Your task to perform on an android device: turn off location history Image 0: 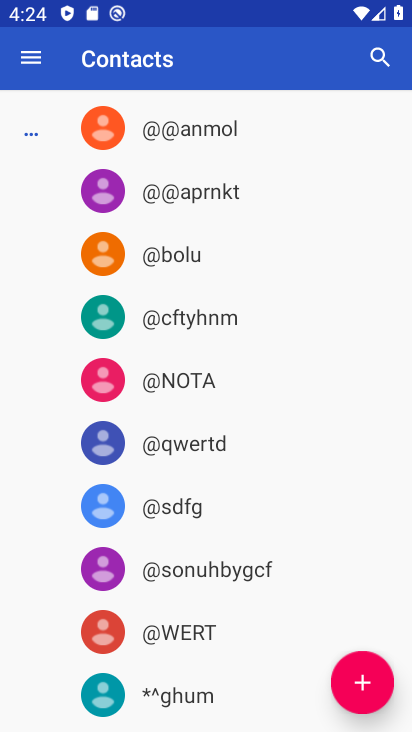
Step 0: press home button
Your task to perform on an android device: turn off location history Image 1: 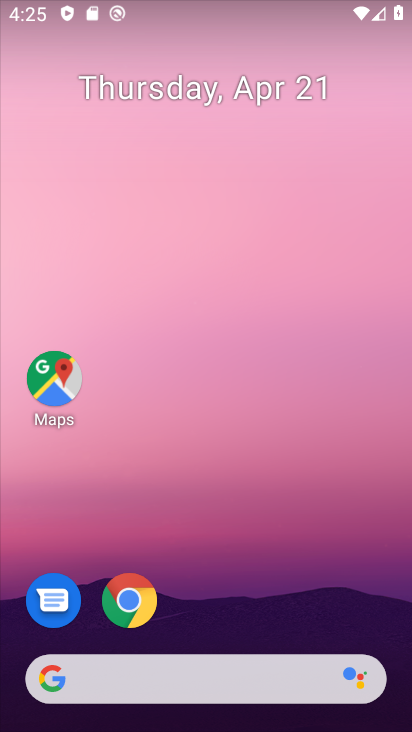
Step 1: drag from (253, 628) to (223, 174)
Your task to perform on an android device: turn off location history Image 2: 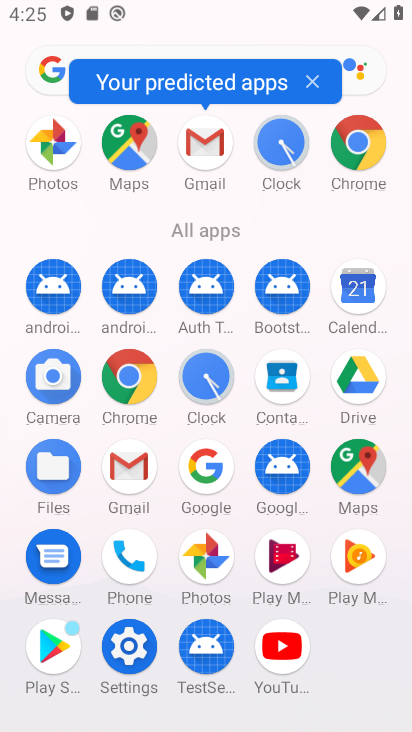
Step 2: click (134, 656)
Your task to perform on an android device: turn off location history Image 3: 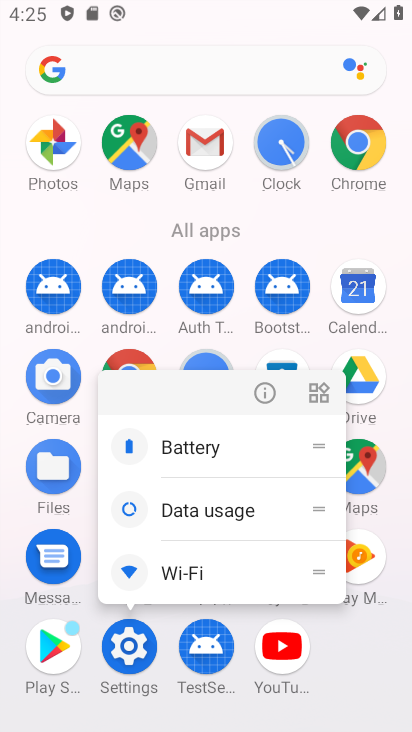
Step 3: click (134, 658)
Your task to perform on an android device: turn off location history Image 4: 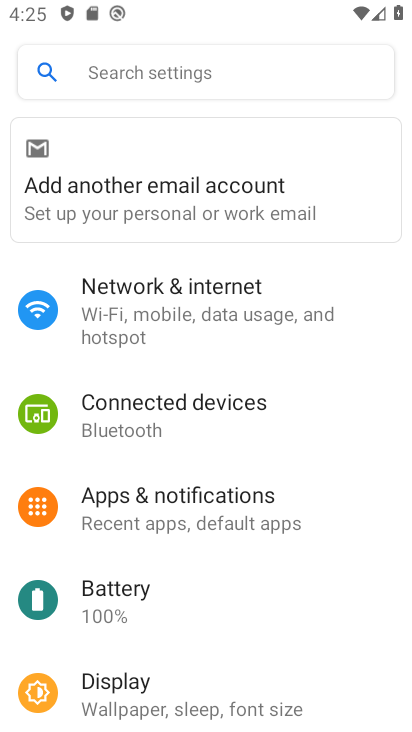
Step 4: drag from (157, 680) to (195, 399)
Your task to perform on an android device: turn off location history Image 5: 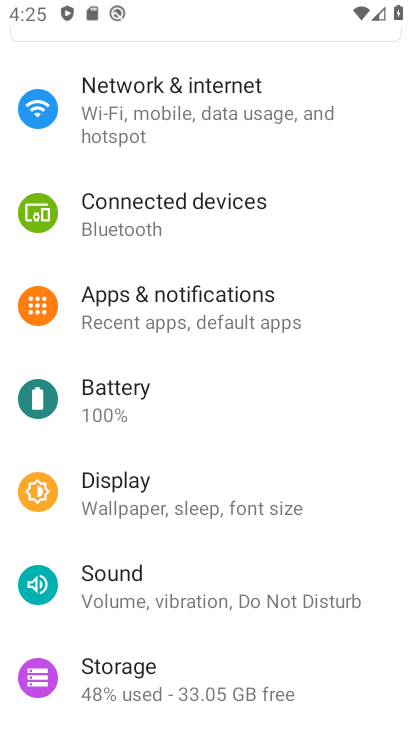
Step 5: drag from (195, 668) to (223, 405)
Your task to perform on an android device: turn off location history Image 6: 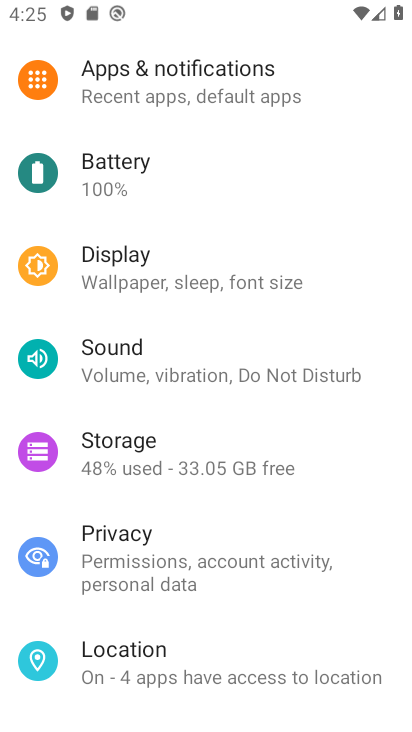
Step 6: click (158, 651)
Your task to perform on an android device: turn off location history Image 7: 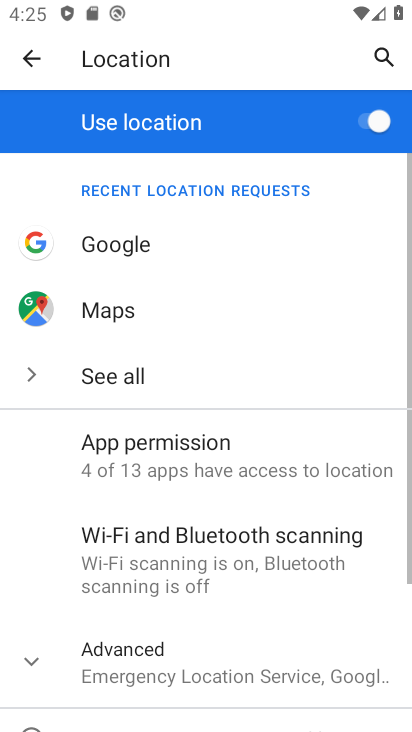
Step 7: click (149, 670)
Your task to perform on an android device: turn off location history Image 8: 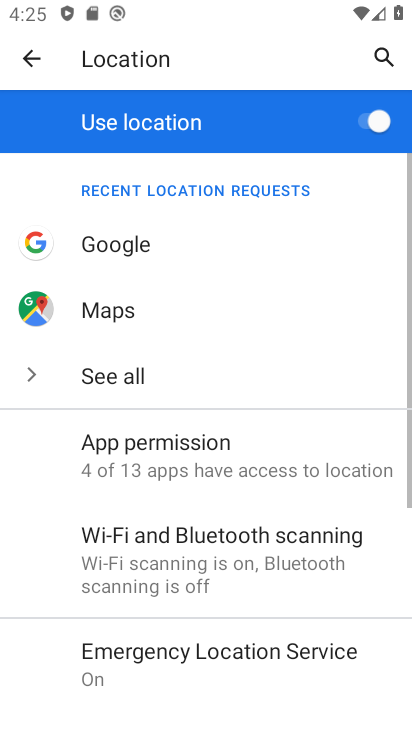
Step 8: drag from (150, 683) to (212, 415)
Your task to perform on an android device: turn off location history Image 9: 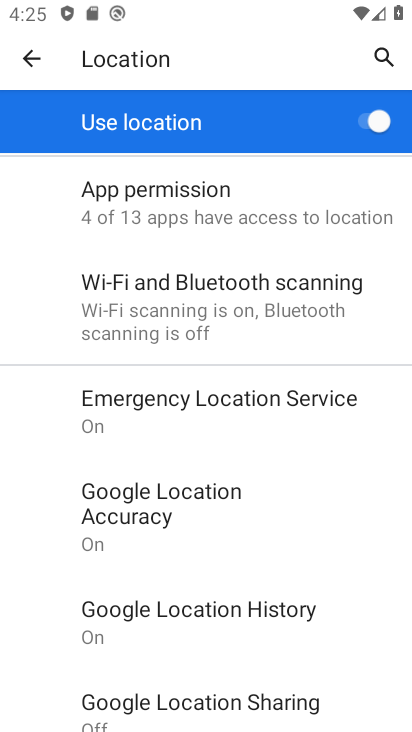
Step 9: click (225, 631)
Your task to perform on an android device: turn off location history Image 10: 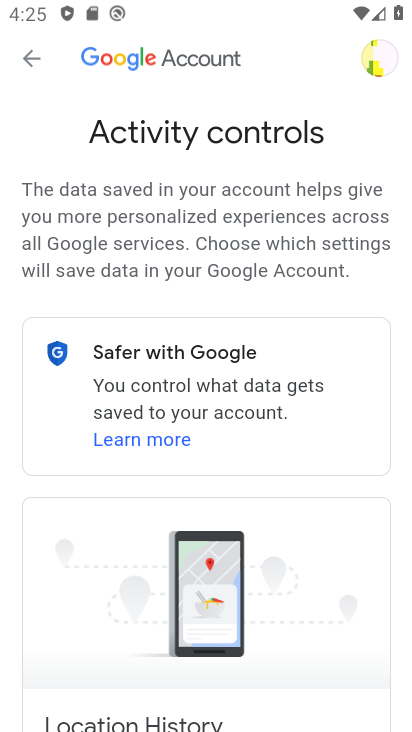
Step 10: drag from (231, 659) to (252, 359)
Your task to perform on an android device: turn off location history Image 11: 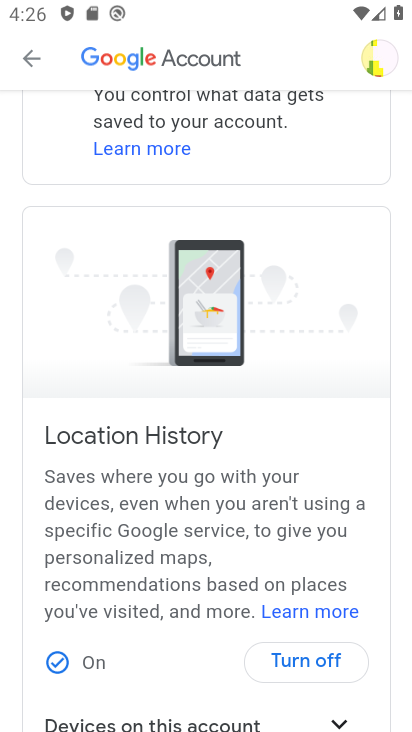
Step 11: click (284, 660)
Your task to perform on an android device: turn off location history Image 12: 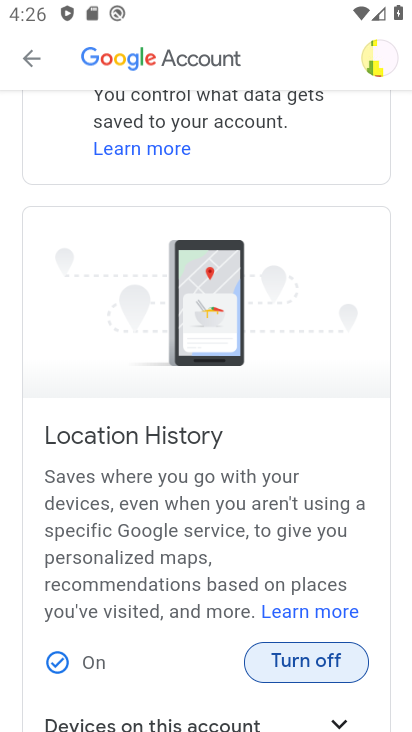
Step 12: click (286, 670)
Your task to perform on an android device: turn off location history Image 13: 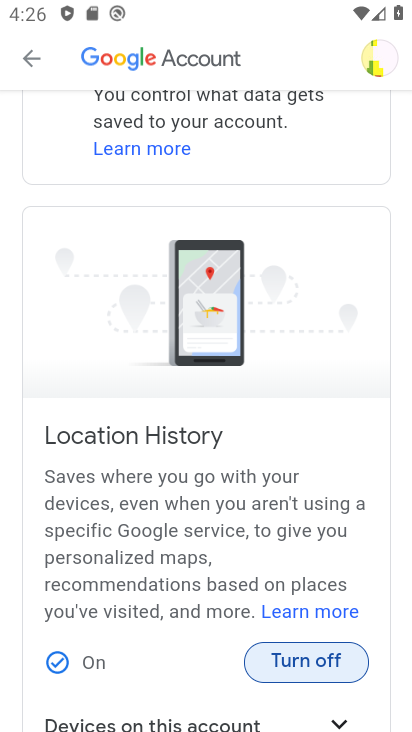
Step 13: click (286, 670)
Your task to perform on an android device: turn off location history Image 14: 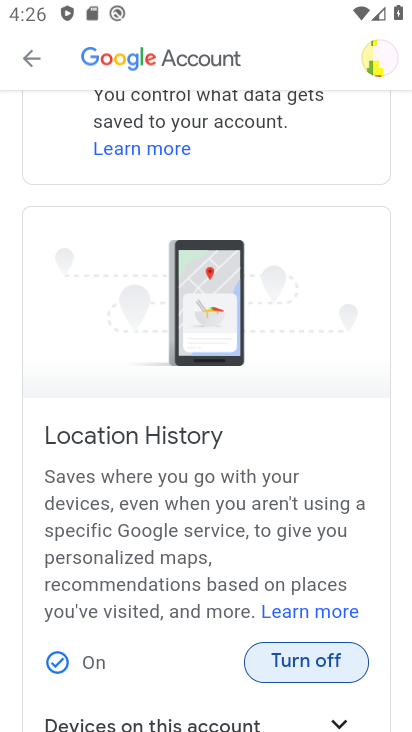
Step 14: click (286, 670)
Your task to perform on an android device: turn off location history Image 15: 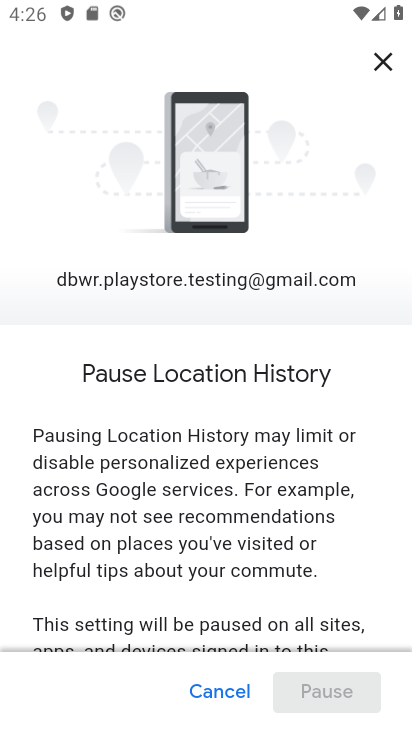
Step 15: drag from (272, 597) to (267, 166)
Your task to perform on an android device: turn off location history Image 16: 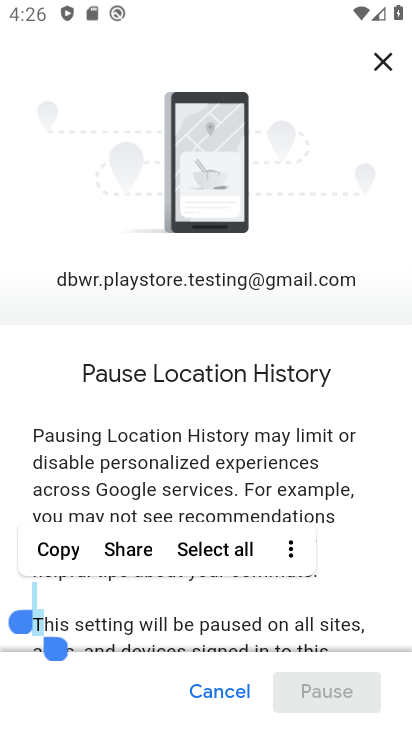
Step 16: drag from (252, 588) to (253, 177)
Your task to perform on an android device: turn off location history Image 17: 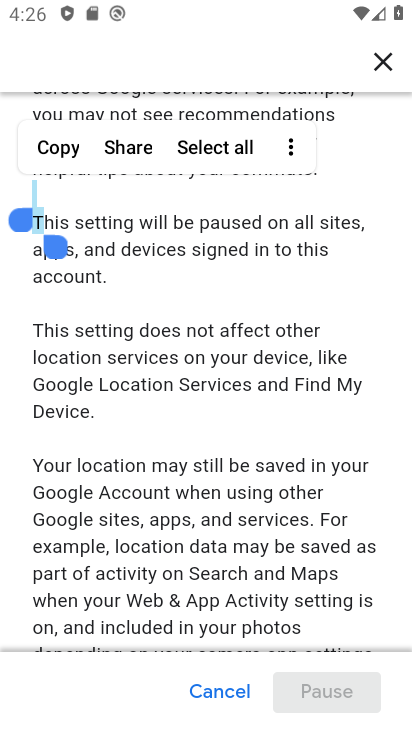
Step 17: drag from (270, 512) to (282, 104)
Your task to perform on an android device: turn off location history Image 18: 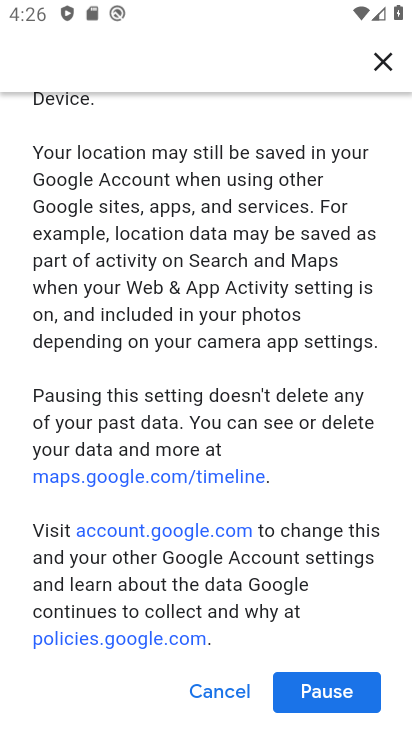
Step 18: click (324, 685)
Your task to perform on an android device: turn off location history Image 19: 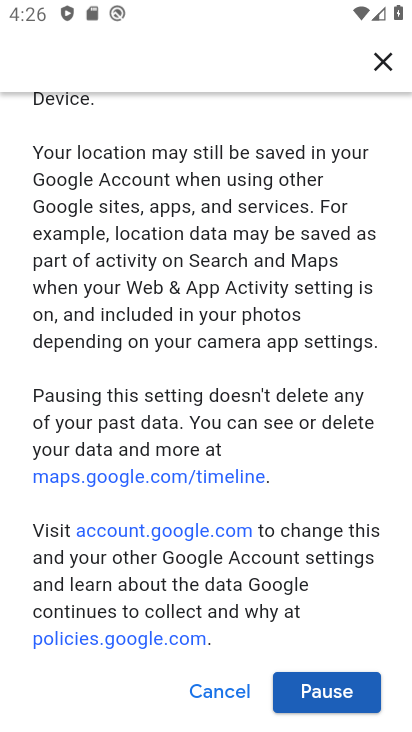
Step 19: click (335, 691)
Your task to perform on an android device: turn off location history Image 20: 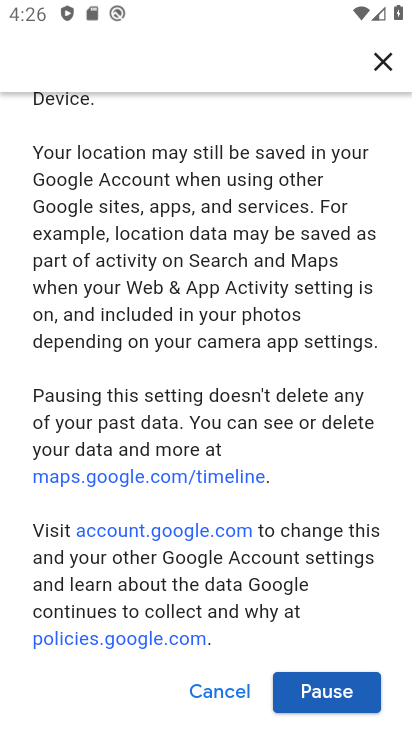
Step 20: click (335, 691)
Your task to perform on an android device: turn off location history Image 21: 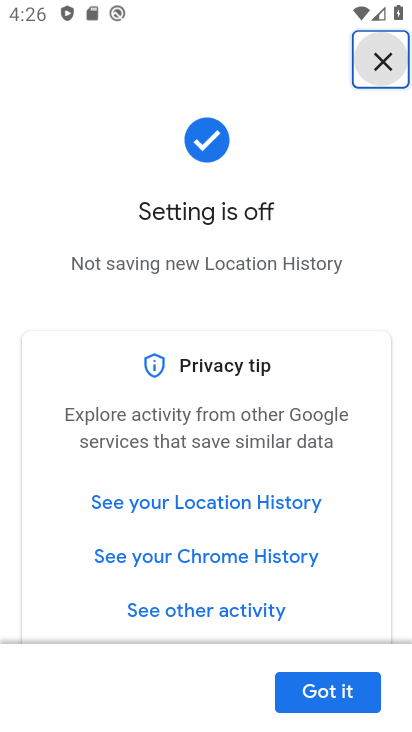
Step 21: task complete